Your task to perform on an android device: Go to accessibility settings Image 0: 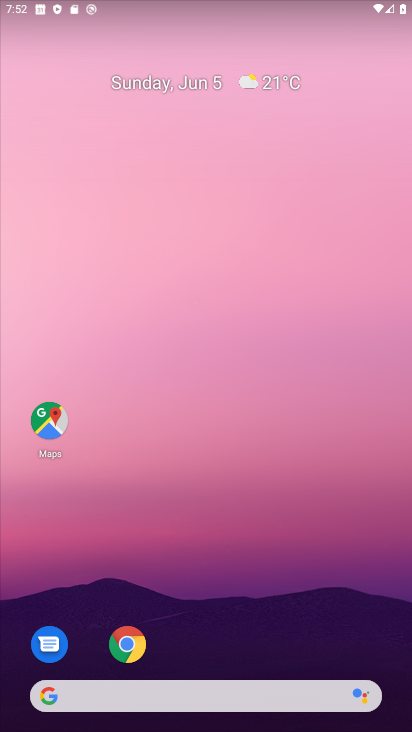
Step 0: task complete